Your task to perform on an android device: turn notification dots on Image 0: 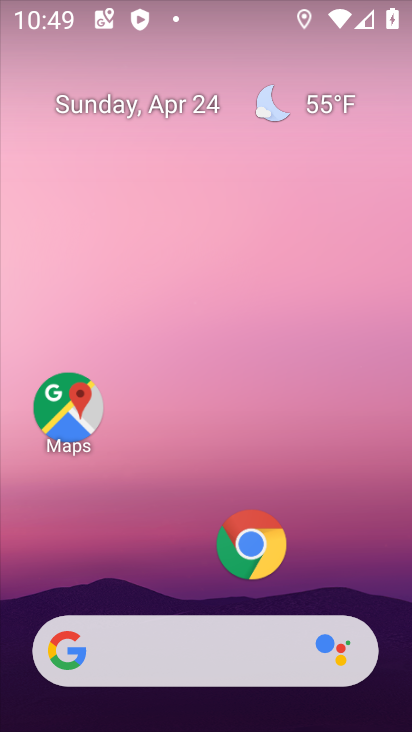
Step 0: drag from (190, 588) to (181, 174)
Your task to perform on an android device: turn notification dots on Image 1: 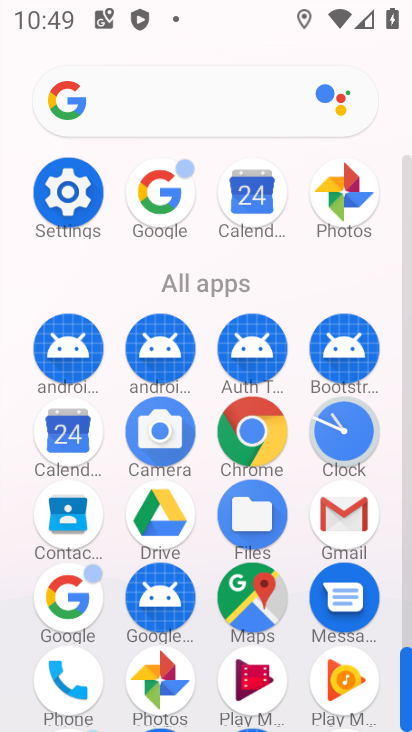
Step 1: click (73, 193)
Your task to perform on an android device: turn notification dots on Image 2: 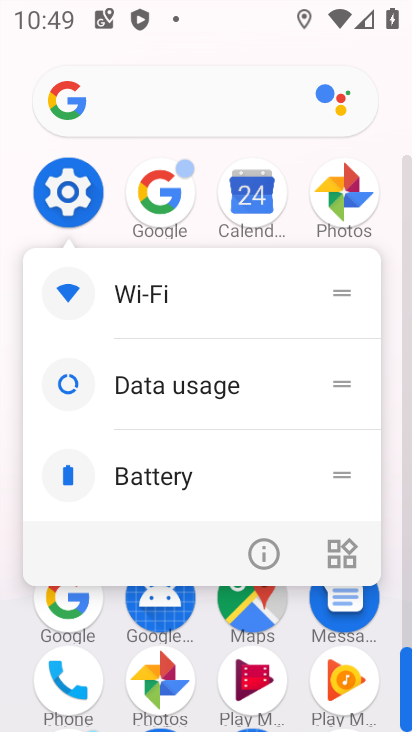
Step 2: click (73, 193)
Your task to perform on an android device: turn notification dots on Image 3: 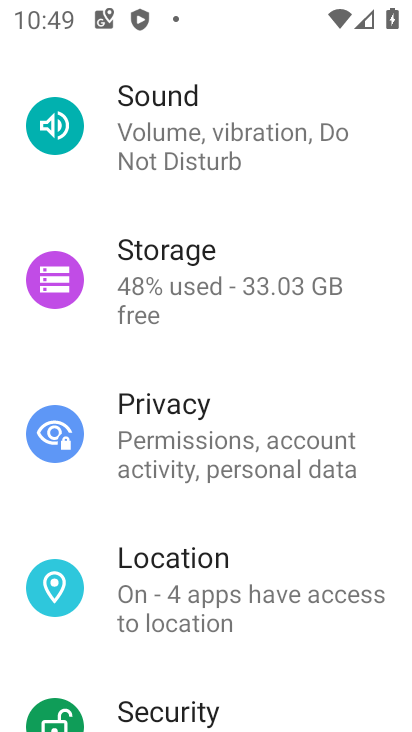
Step 3: drag from (251, 656) to (272, 615)
Your task to perform on an android device: turn notification dots on Image 4: 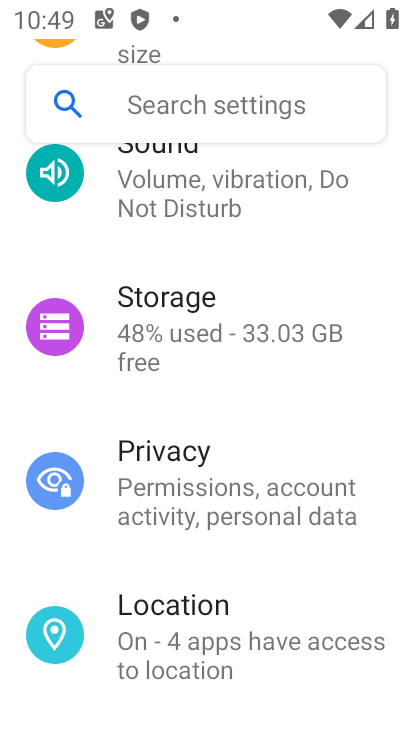
Step 4: drag from (259, 274) to (249, 569)
Your task to perform on an android device: turn notification dots on Image 5: 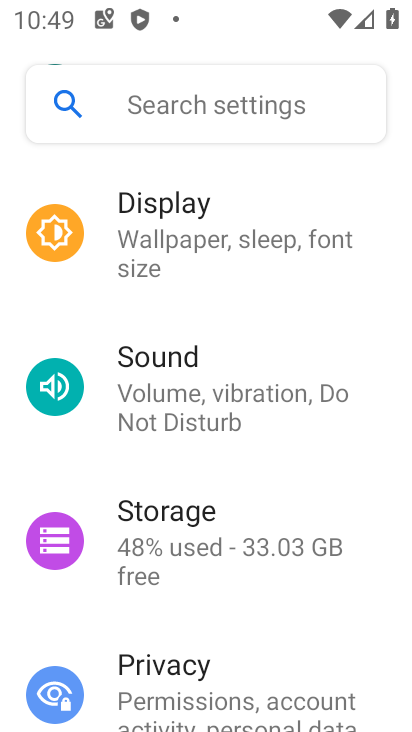
Step 5: drag from (230, 255) to (232, 524)
Your task to perform on an android device: turn notification dots on Image 6: 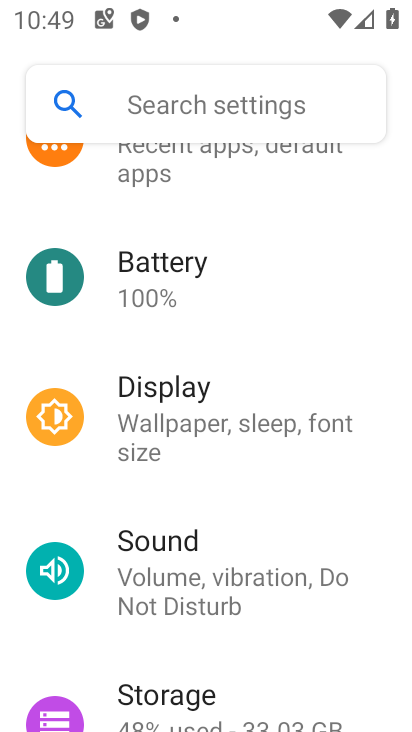
Step 6: click (209, 176)
Your task to perform on an android device: turn notification dots on Image 7: 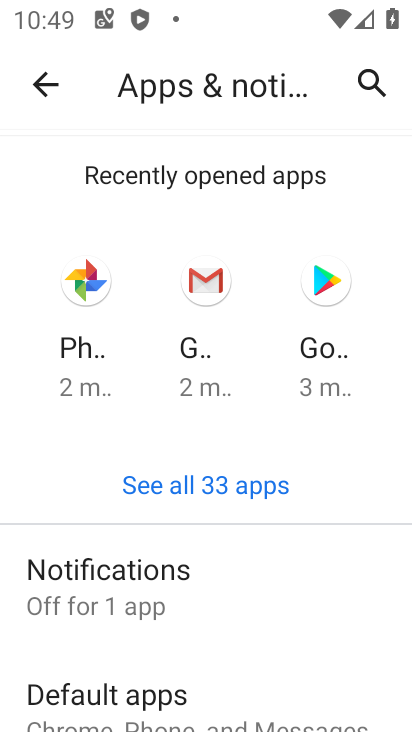
Step 7: click (126, 584)
Your task to perform on an android device: turn notification dots on Image 8: 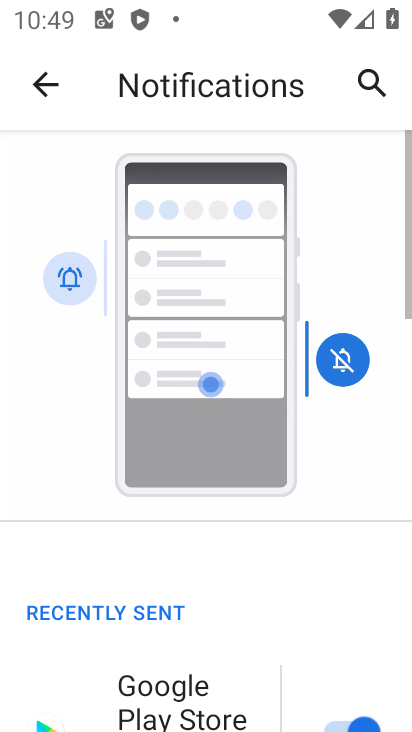
Step 8: drag from (297, 582) to (266, 139)
Your task to perform on an android device: turn notification dots on Image 9: 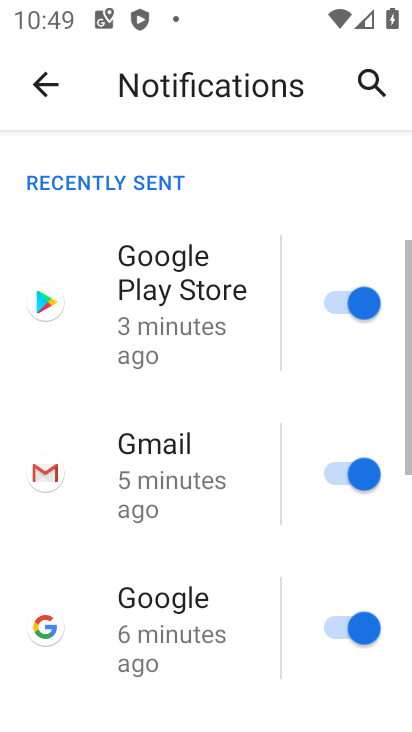
Step 9: click (244, 228)
Your task to perform on an android device: turn notification dots on Image 10: 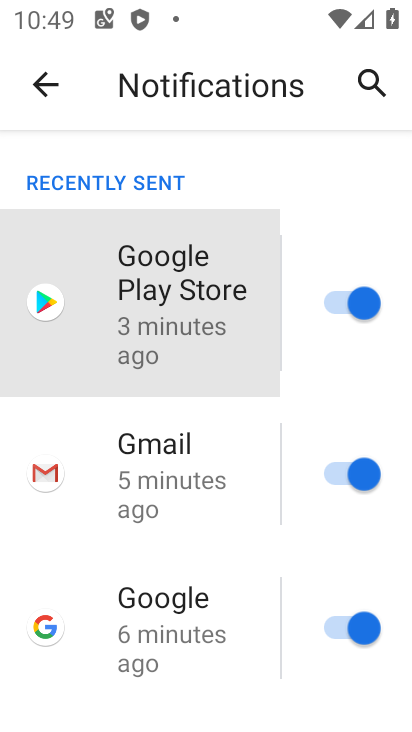
Step 10: drag from (254, 279) to (254, 233)
Your task to perform on an android device: turn notification dots on Image 11: 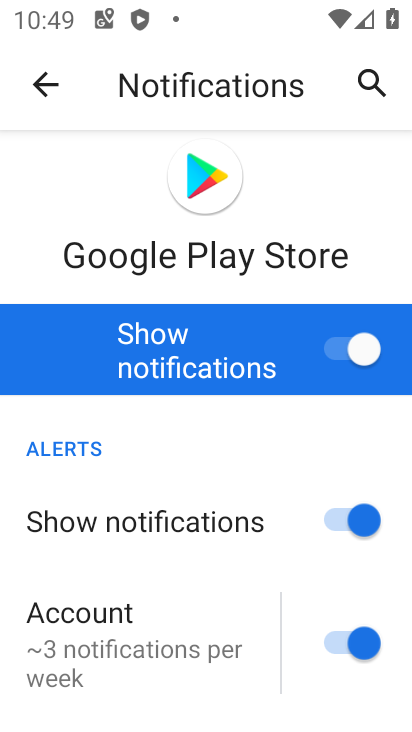
Step 11: click (50, 91)
Your task to perform on an android device: turn notification dots on Image 12: 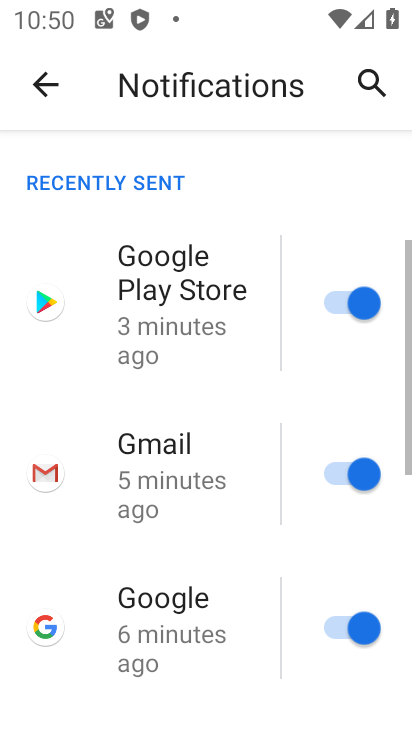
Step 12: drag from (217, 594) to (232, 172)
Your task to perform on an android device: turn notification dots on Image 13: 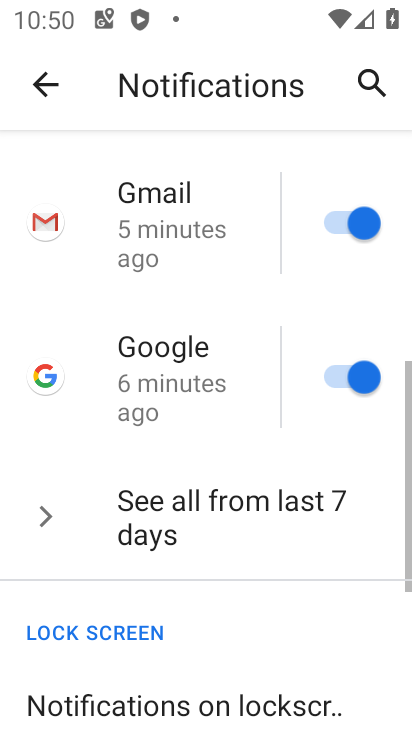
Step 13: drag from (217, 488) to (220, 217)
Your task to perform on an android device: turn notification dots on Image 14: 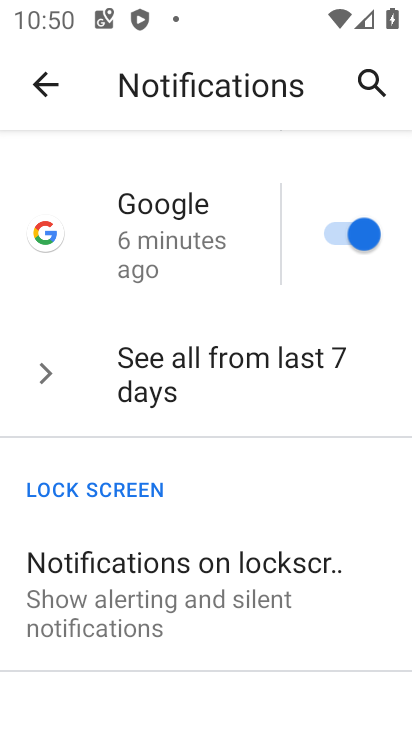
Step 14: drag from (261, 642) to (261, 336)
Your task to perform on an android device: turn notification dots on Image 15: 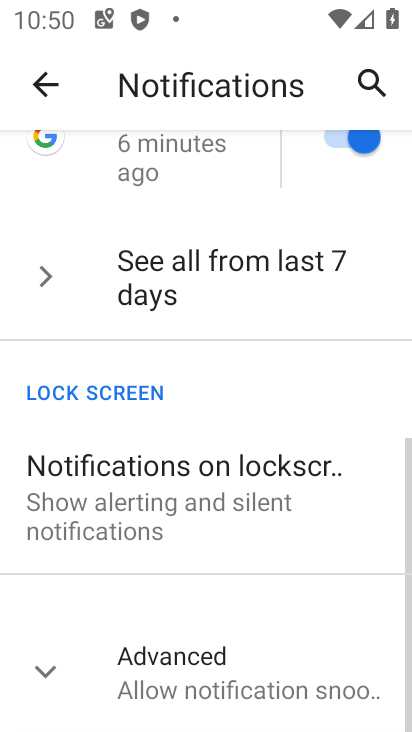
Step 15: click (232, 655)
Your task to perform on an android device: turn notification dots on Image 16: 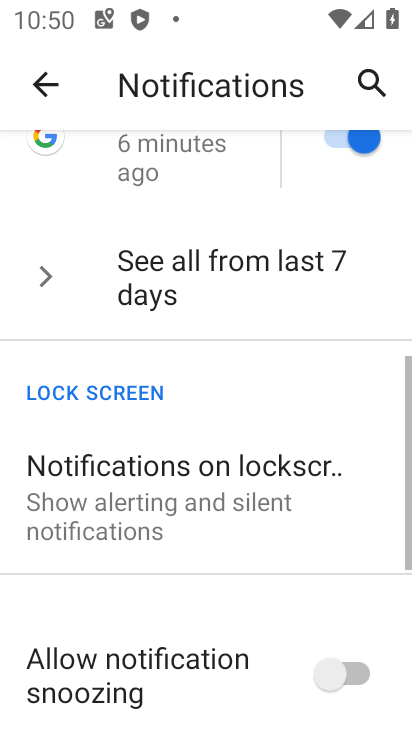
Step 16: task complete